Your task to perform on an android device: change the upload size in google photos Image 0: 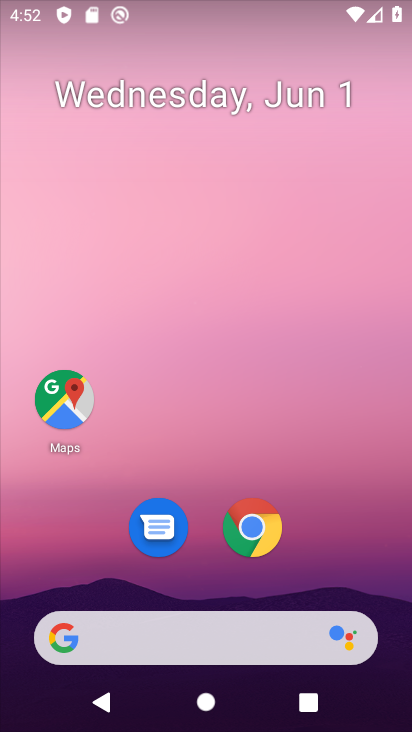
Step 0: drag from (88, 608) to (234, 87)
Your task to perform on an android device: change the upload size in google photos Image 1: 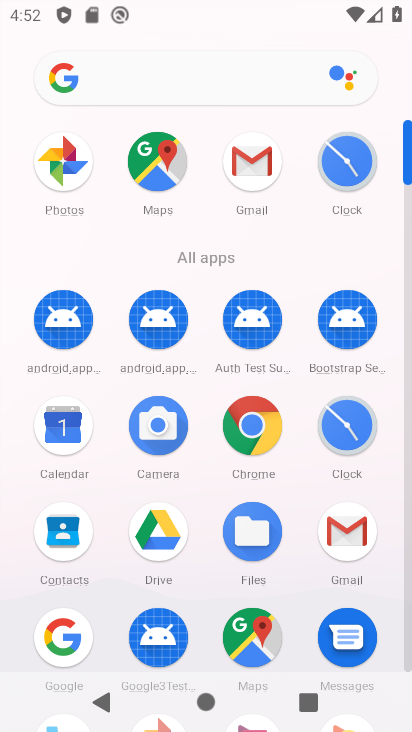
Step 1: drag from (134, 601) to (215, 343)
Your task to perform on an android device: change the upload size in google photos Image 2: 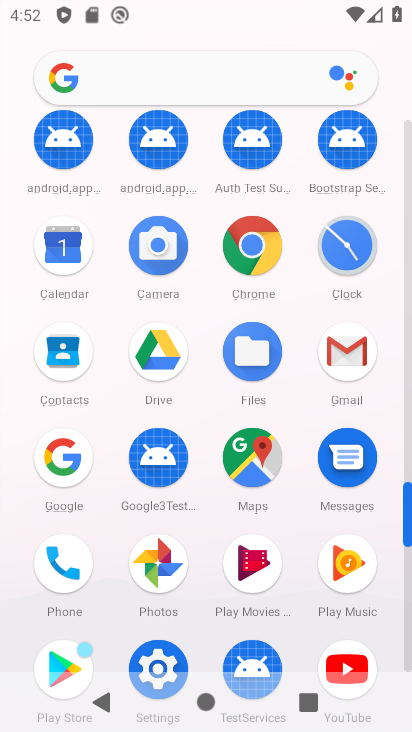
Step 2: click (167, 574)
Your task to perform on an android device: change the upload size in google photos Image 3: 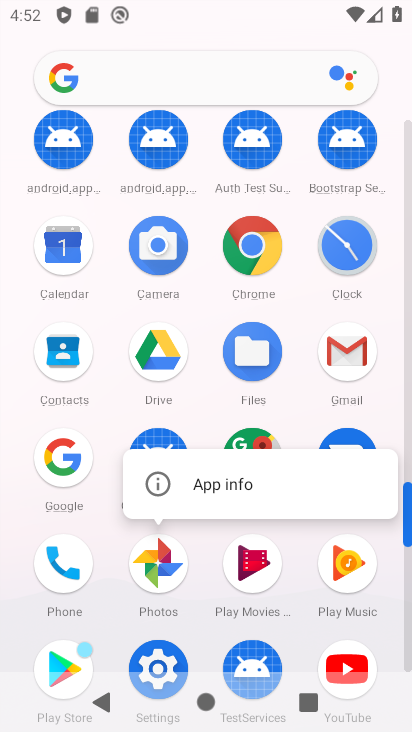
Step 3: click (157, 578)
Your task to perform on an android device: change the upload size in google photos Image 4: 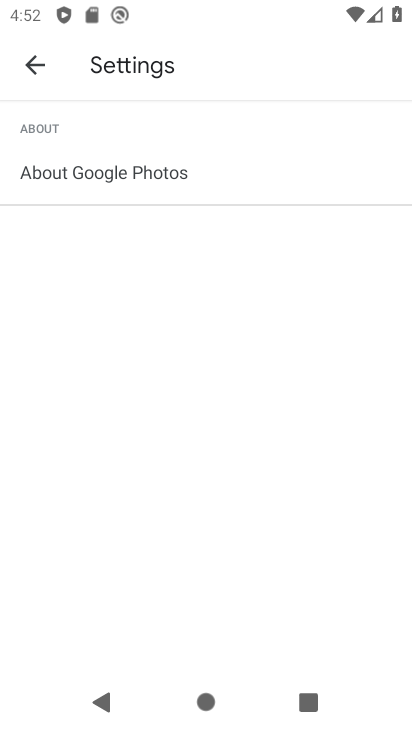
Step 4: click (35, 86)
Your task to perform on an android device: change the upload size in google photos Image 5: 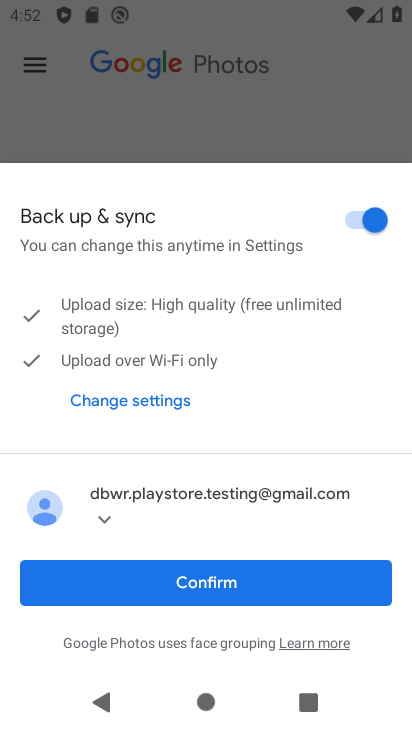
Step 5: click (266, 593)
Your task to perform on an android device: change the upload size in google photos Image 6: 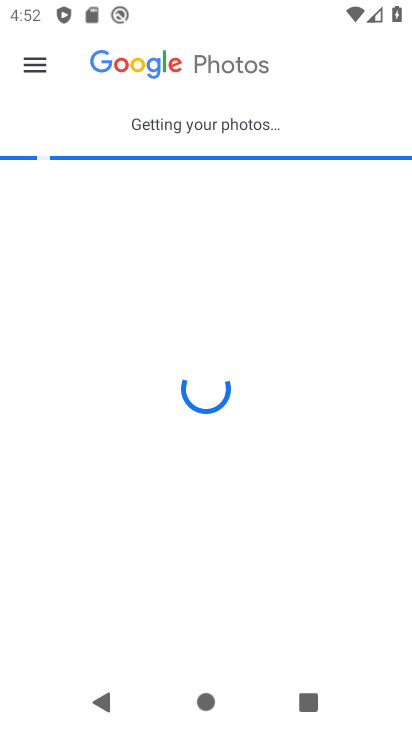
Step 6: click (36, 65)
Your task to perform on an android device: change the upload size in google photos Image 7: 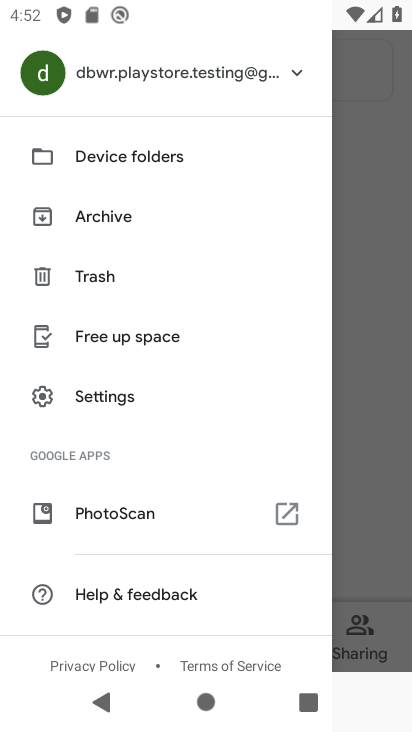
Step 7: click (141, 392)
Your task to perform on an android device: change the upload size in google photos Image 8: 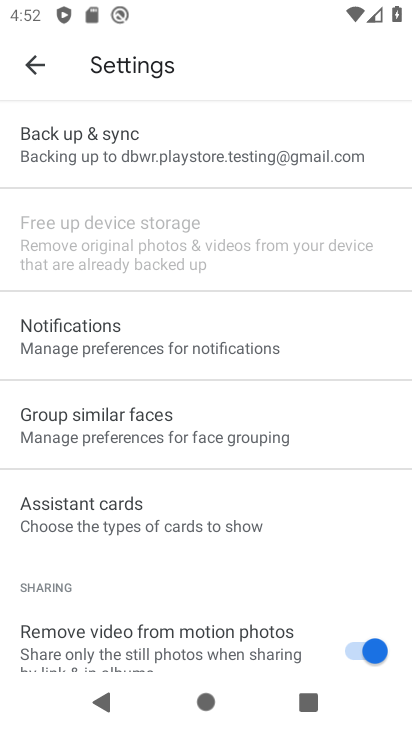
Step 8: click (186, 163)
Your task to perform on an android device: change the upload size in google photos Image 9: 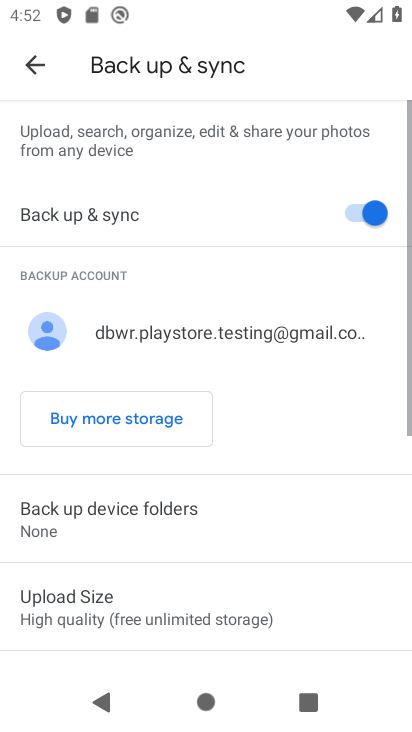
Step 9: drag from (126, 579) to (243, 244)
Your task to perform on an android device: change the upload size in google photos Image 10: 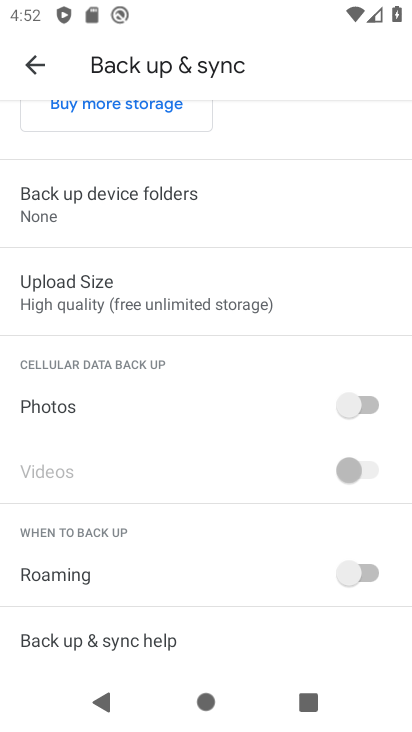
Step 10: click (168, 294)
Your task to perform on an android device: change the upload size in google photos Image 11: 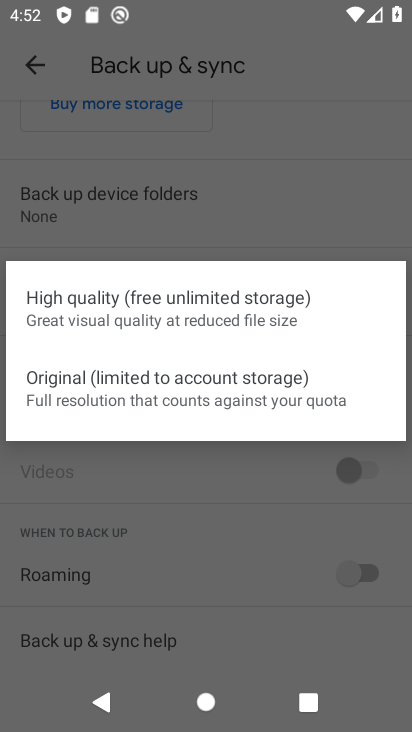
Step 11: click (146, 379)
Your task to perform on an android device: change the upload size in google photos Image 12: 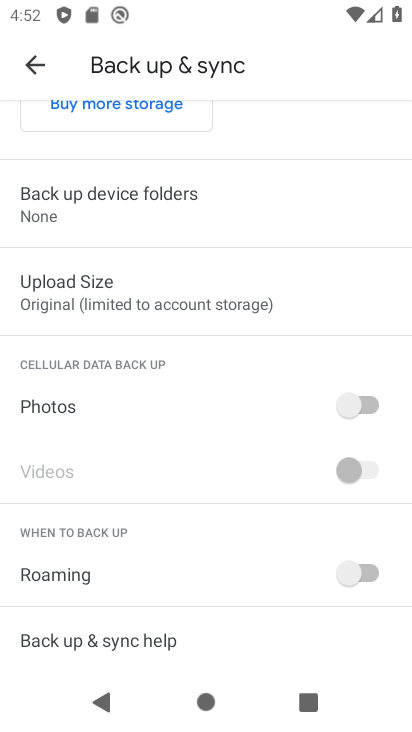
Step 12: task complete